Your task to perform on an android device: Open privacy settings Image 0: 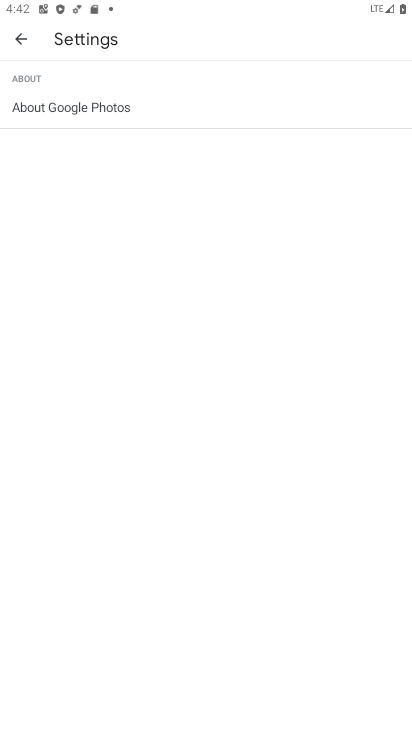
Step 0: press home button
Your task to perform on an android device: Open privacy settings Image 1: 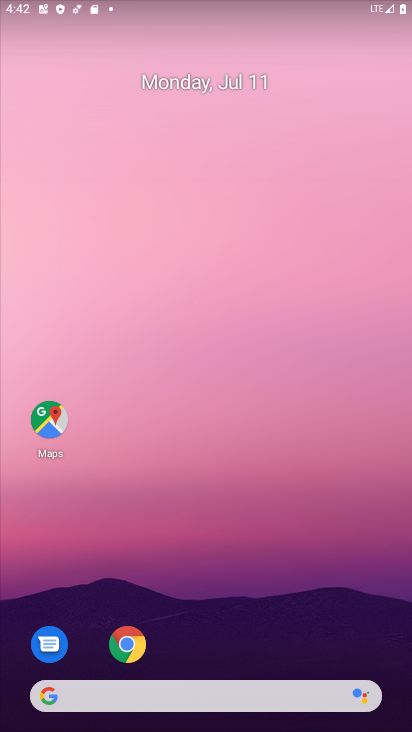
Step 1: drag from (287, 622) to (210, 191)
Your task to perform on an android device: Open privacy settings Image 2: 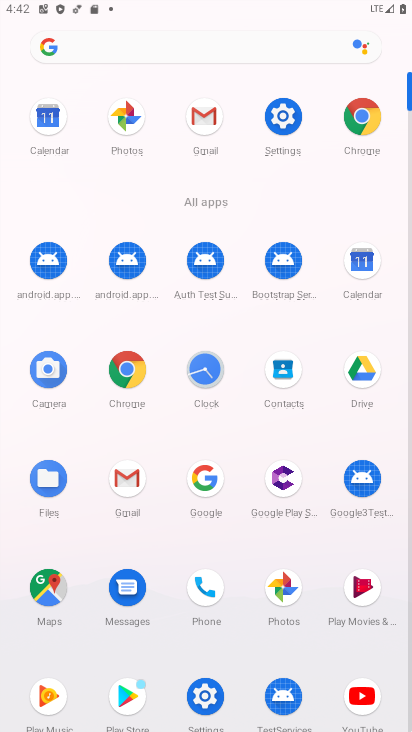
Step 2: click (278, 130)
Your task to perform on an android device: Open privacy settings Image 3: 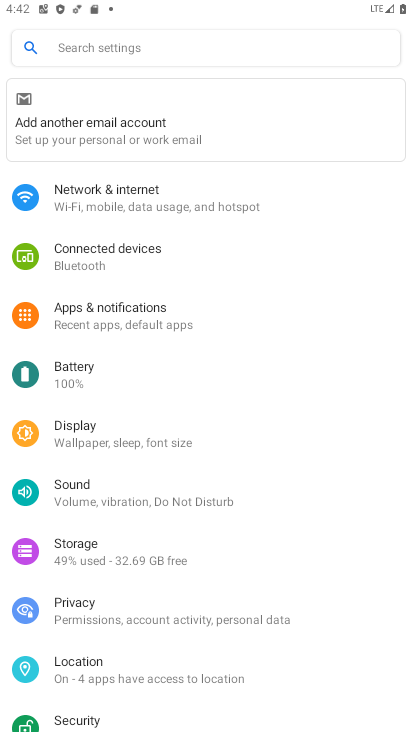
Step 3: click (145, 615)
Your task to perform on an android device: Open privacy settings Image 4: 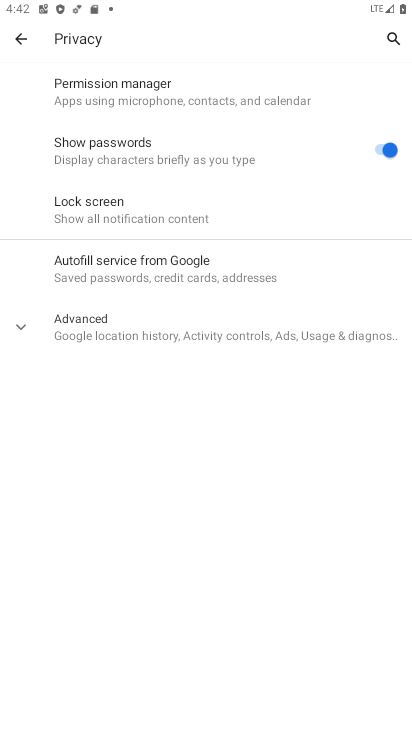
Step 4: click (37, 330)
Your task to perform on an android device: Open privacy settings Image 5: 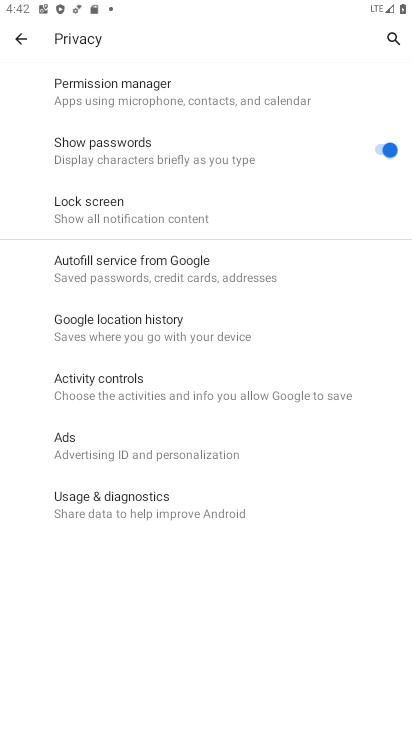
Step 5: task complete